Your task to perform on an android device: Open internet settings Image 0: 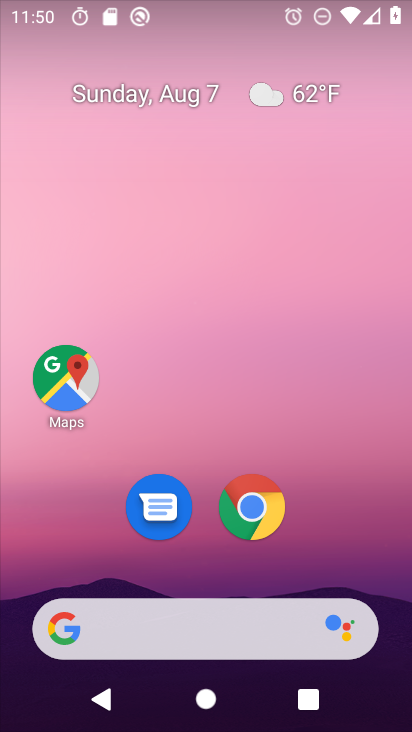
Step 0: drag from (346, 566) to (411, 61)
Your task to perform on an android device: Open internet settings Image 1: 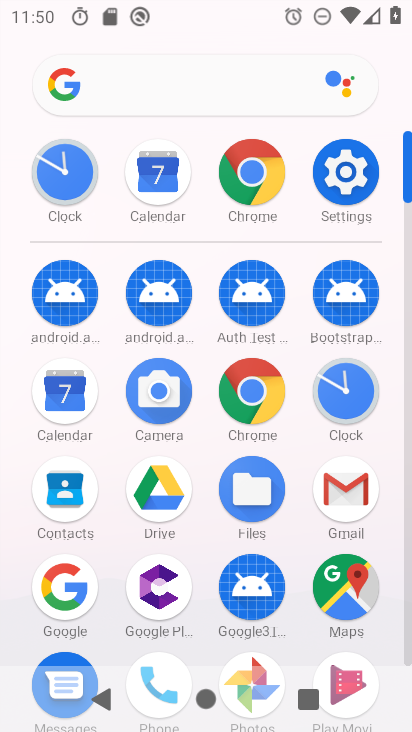
Step 1: click (340, 170)
Your task to perform on an android device: Open internet settings Image 2: 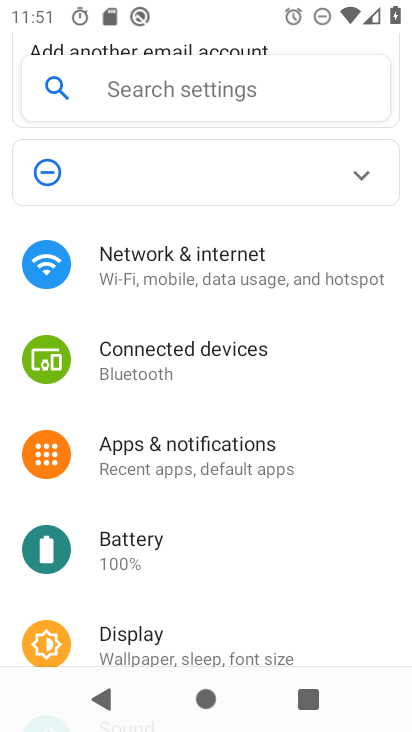
Step 2: click (210, 267)
Your task to perform on an android device: Open internet settings Image 3: 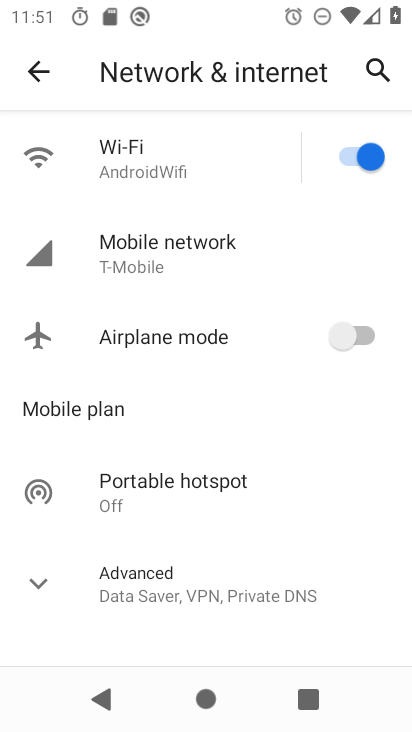
Step 3: drag from (220, 569) to (286, 123)
Your task to perform on an android device: Open internet settings Image 4: 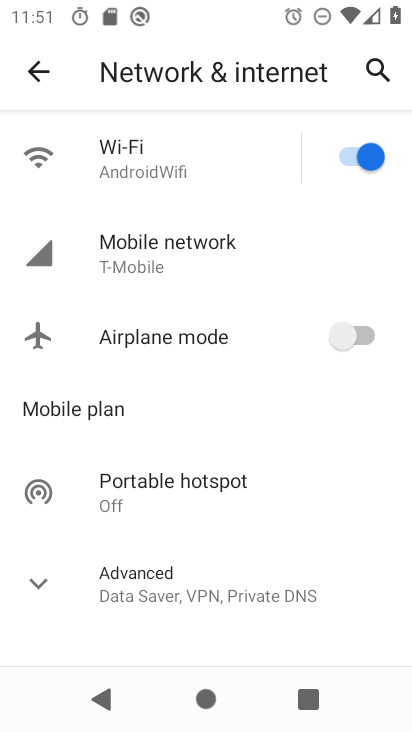
Step 4: click (221, 584)
Your task to perform on an android device: Open internet settings Image 5: 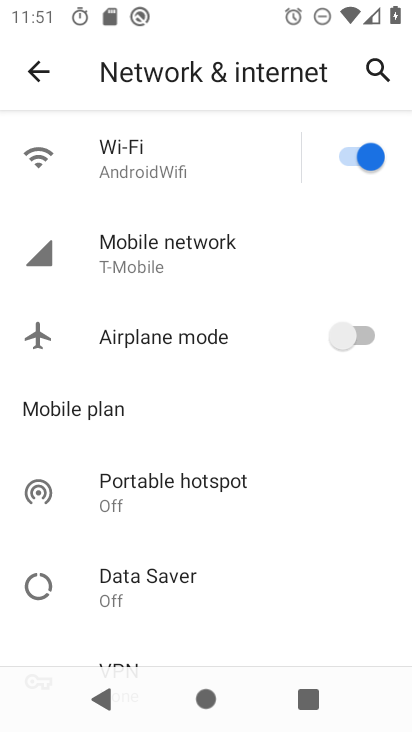
Step 5: task complete